Your task to perform on an android device: Open Google Image 0: 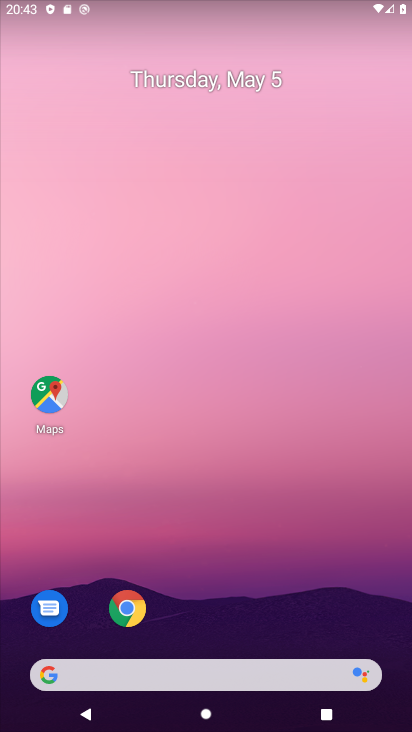
Step 0: drag from (322, 675) to (253, 5)
Your task to perform on an android device: Open Google Image 1: 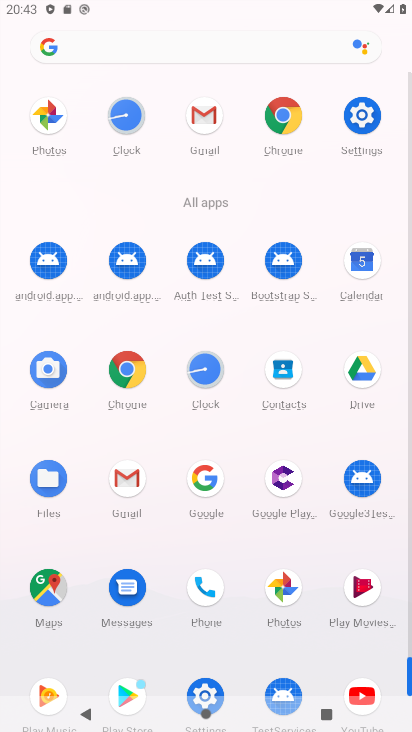
Step 1: click (134, 375)
Your task to perform on an android device: Open Google Image 2: 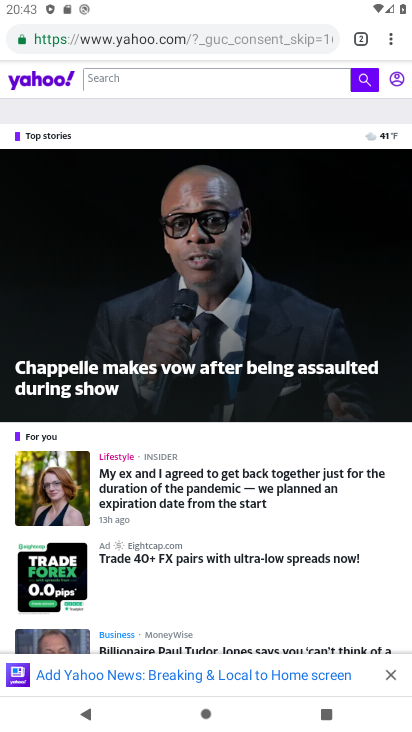
Step 2: task complete